Your task to perform on an android device: turn smart compose on in the gmail app Image 0: 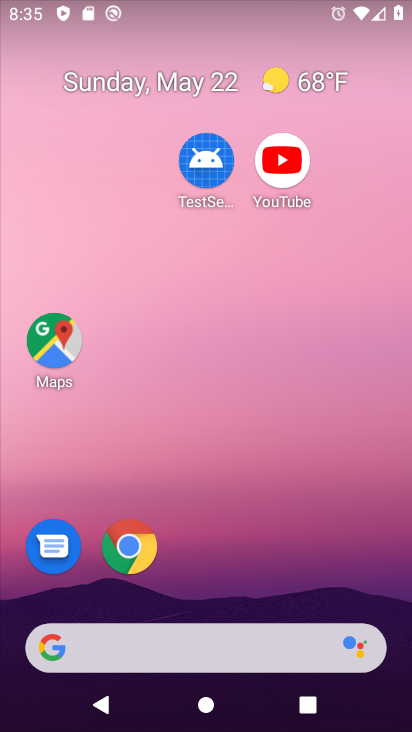
Step 0: click (145, 173)
Your task to perform on an android device: turn smart compose on in the gmail app Image 1: 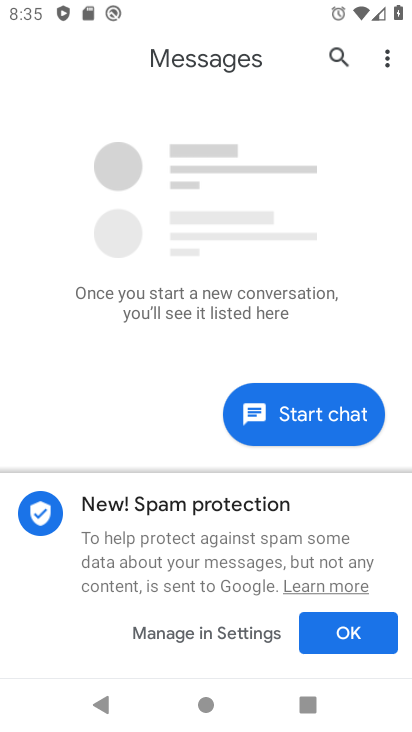
Step 1: press back button
Your task to perform on an android device: turn smart compose on in the gmail app Image 2: 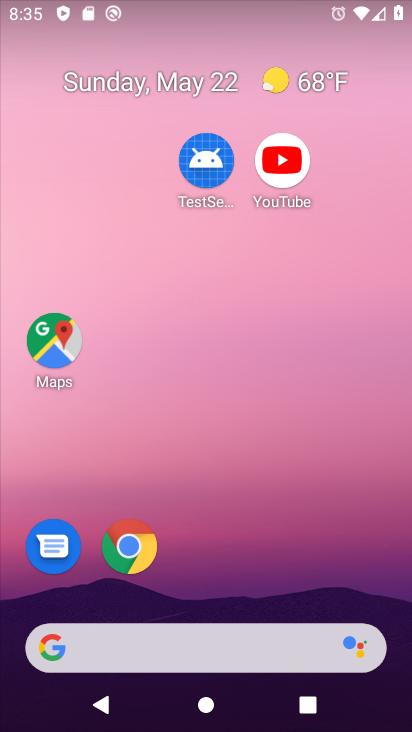
Step 2: drag from (241, 703) to (226, 325)
Your task to perform on an android device: turn smart compose on in the gmail app Image 3: 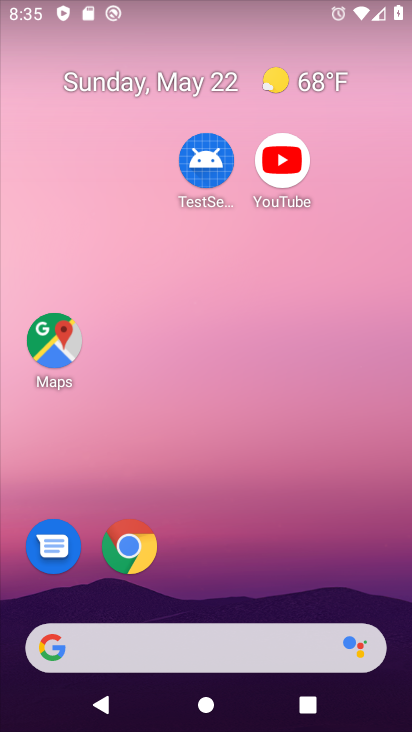
Step 3: drag from (261, 558) to (245, 213)
Your task to perform on an android device: turn smart compose on in the gmail app Image 4: 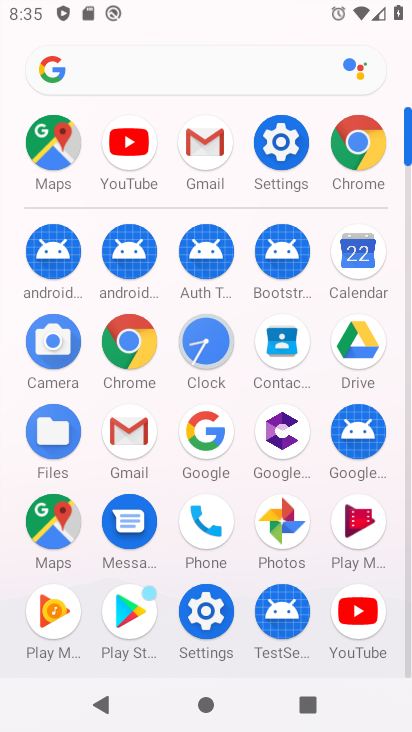
Step 4: click (202, 150)
Your task to perform on an android device: turn smart compose on in the gmail app Image 5: 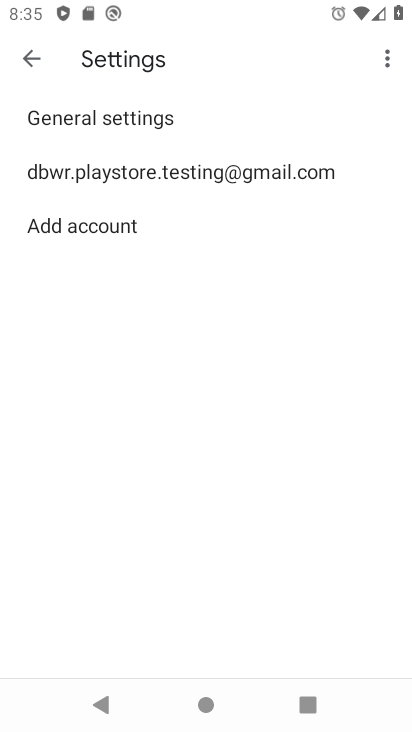
Step 5: click (179, 179)
Your task to perform on an android device: turn smart compose on in the gmail app Image 6: 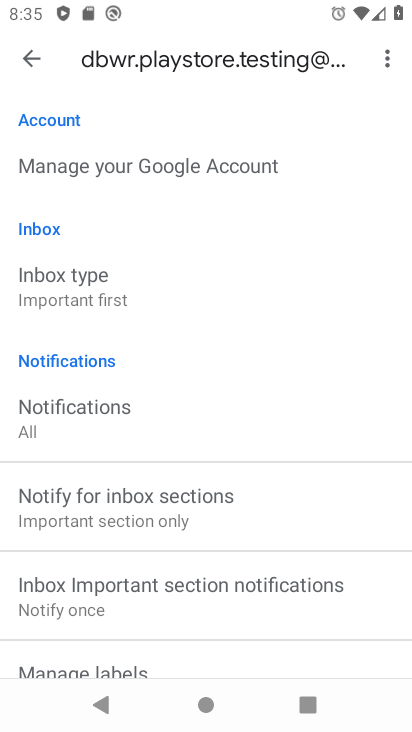
Step 6: drag from (132, 477) to (110, 112)
Your task to perform on an android device: turn smart compose on in the gmail app Image 7: 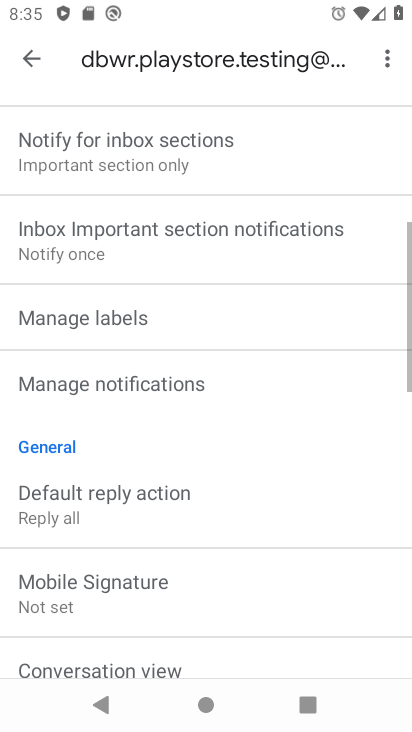
Step 7: drag from (119, 527) to (137, 279)
Your task to perform on an android device: turn smart compose on in the gmail app Image 8: 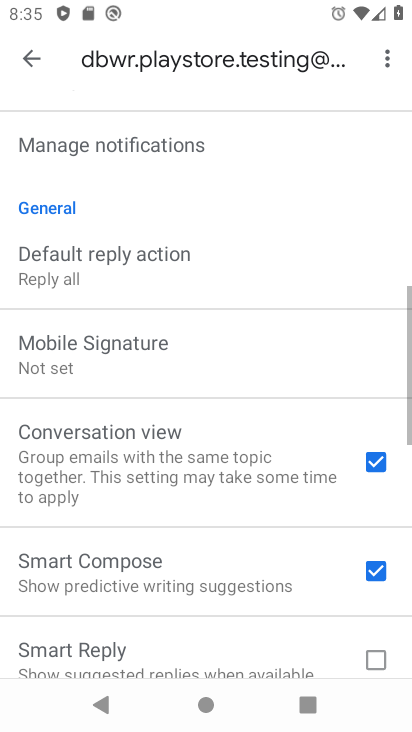
Step 8: drag from (221, 524) to (259, 250)
Your task to perform on an android device: turn smart compose on in the gmail app Image 9: 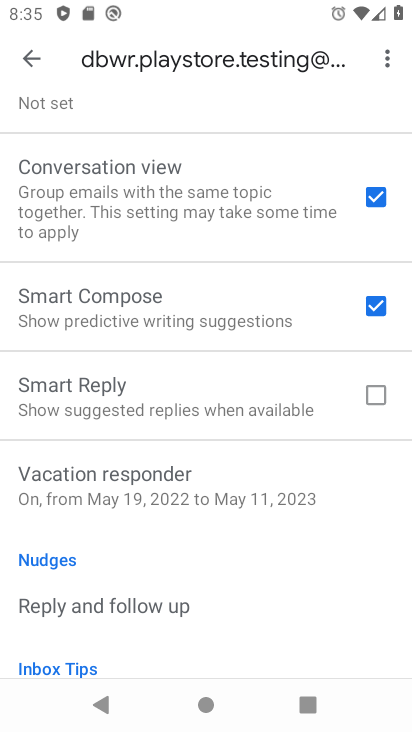
Step 9: click (381, 307)
Your task to perform on an android device: turn smart compose on in the gmail app Image 10: 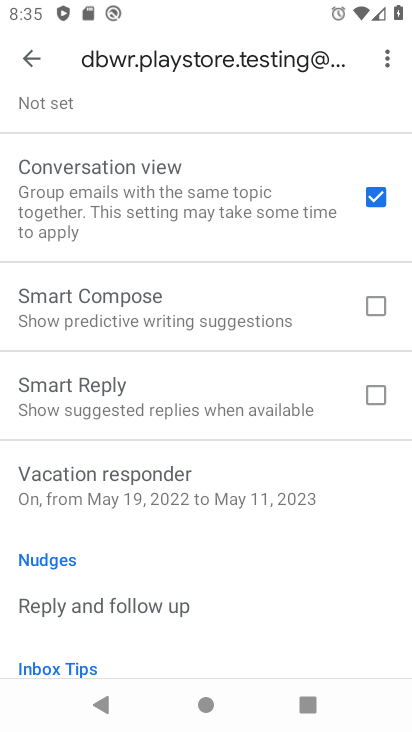
Step 10: click (381, 295)
Your task to perform on an android device: turn smart compose on in the gmail app Image 11: 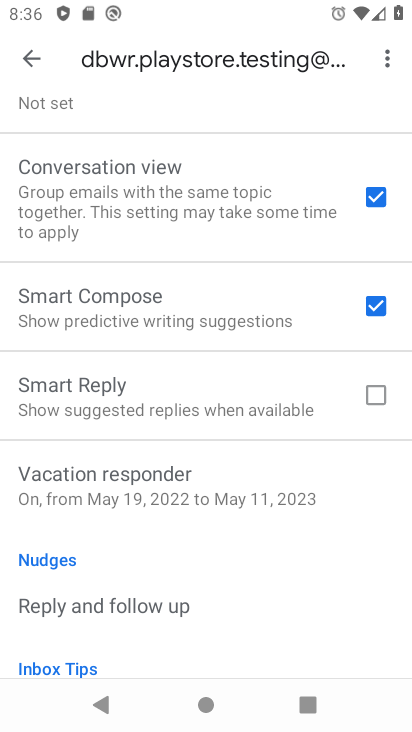
Step 11: task complete